Your task to perform on an android device: turn on translation in the chrome app Image 0: 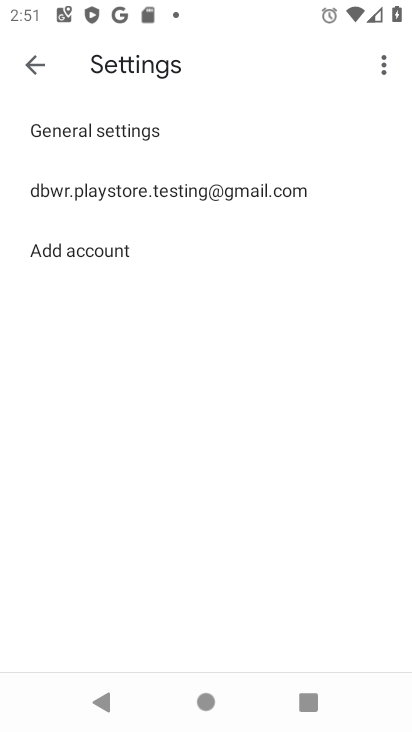
Step 0: press home button
Your task to perform on an android device: turn on translation in the chrome app Image 1: 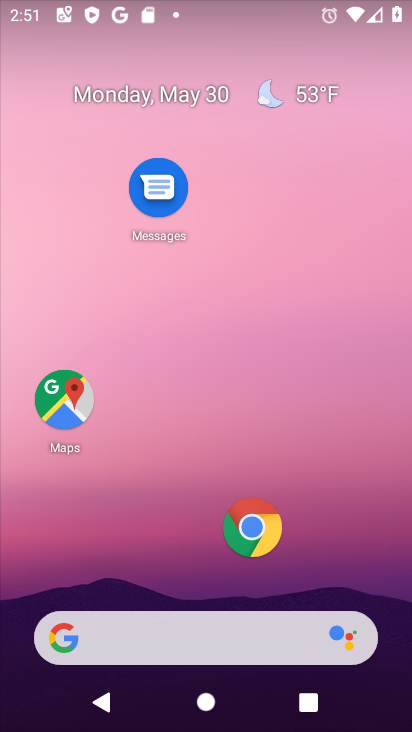
Step 1: drag from (152, 550) to (325, 63)
Your task to perform on an android device: turn on translation in the chrome app Image 2: 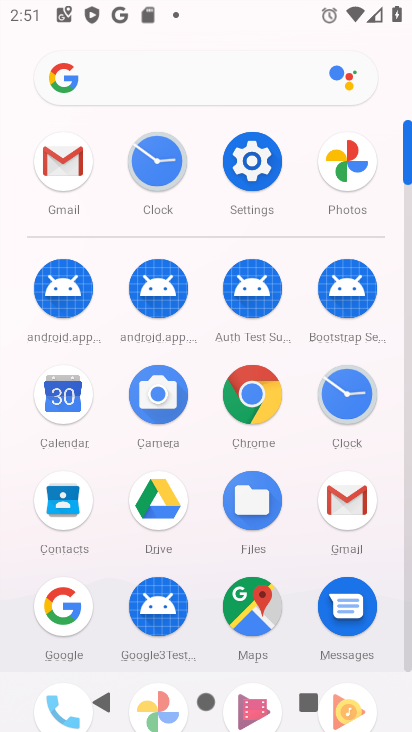
Step 2: click (235, 410)
Your task to perform on an android device: turn on translation in the chrome app Image 3: 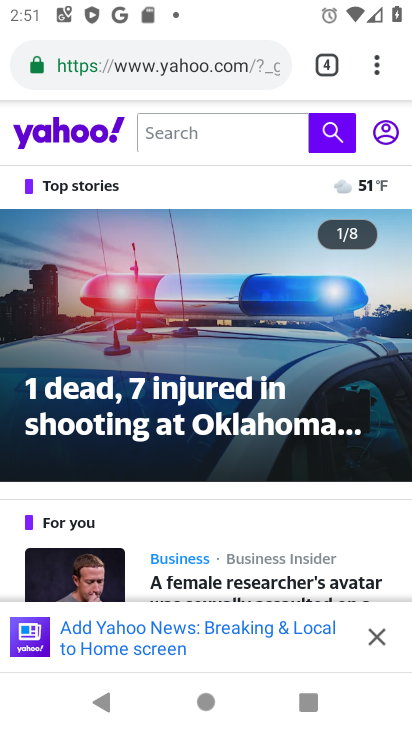
Step 3: click (376, 77)
Your task to perform on an android device: turn on translation in the chrome app Image 4: 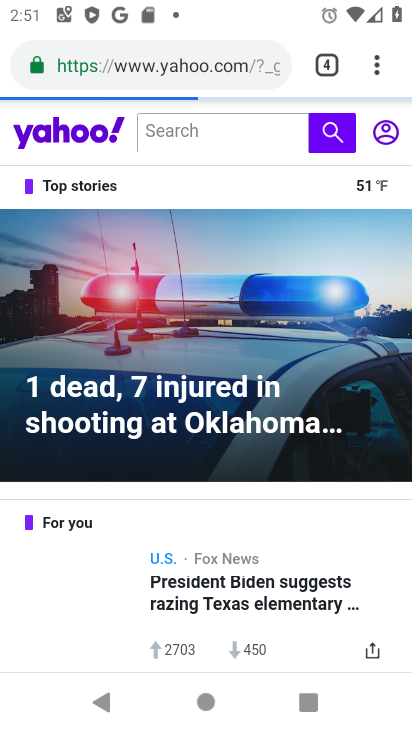
Step 4: click (371, 69)
Your task to perform on an android device: turn on translation in the chrome app Image 5: 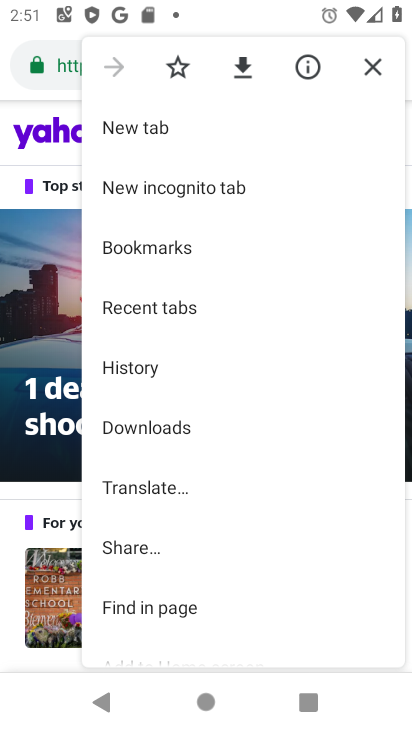
Step 5: drag from (219, 574) to (266, 241)
Your task to perform on an android device: turn on translation in the chrome app Image 6: 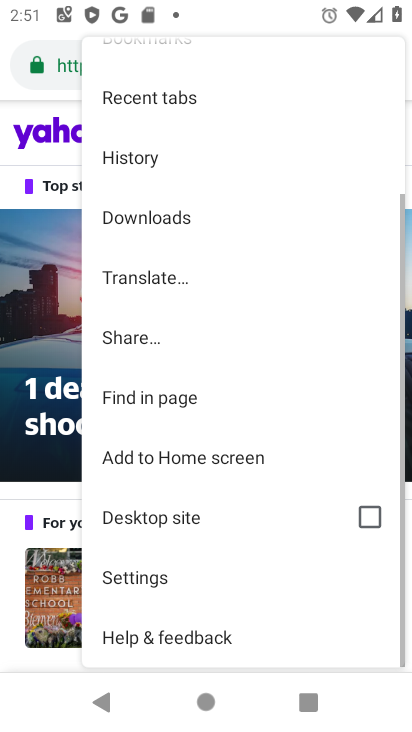
Step 6: click (182, 581)
Your task to perform on an android device: turn on translation in the chrome app Image 7: 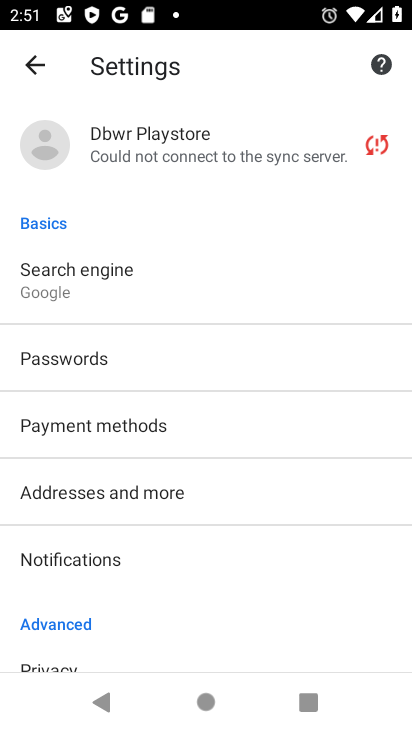
Step 7: drag from (177, 553) to (251, 171)
Your task to perform on an android device: turn on translation in the chrome app Image 8: 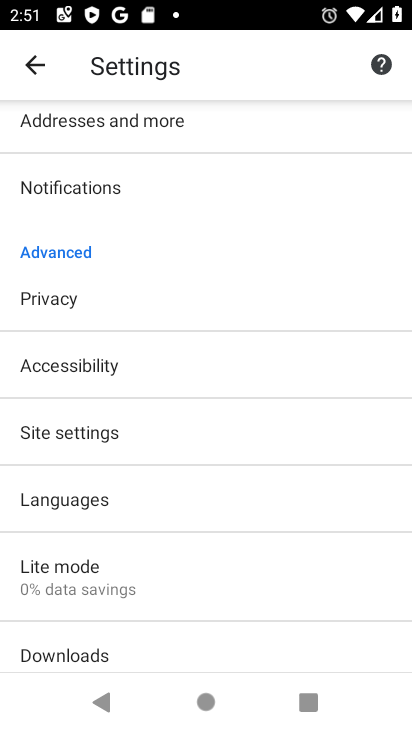
Step 8: drag from (139, 568) to (205, 287)
Your task to perform on an android device: turn on translation in the chrome app Image 9: 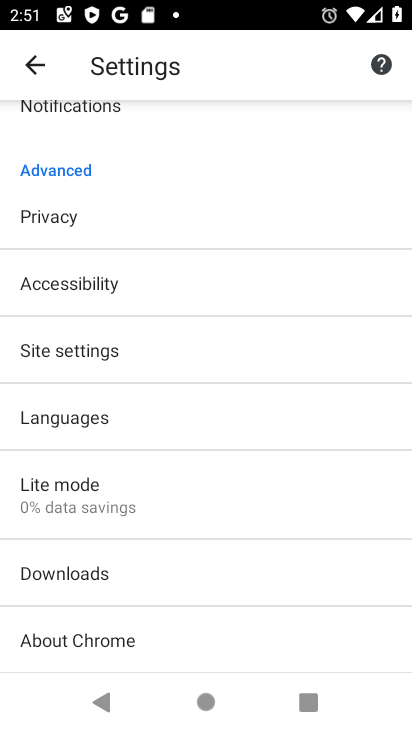
Step 9: click (113, 422)
Your task to perform on an android device: turn on translation in the chrome app Image 10: 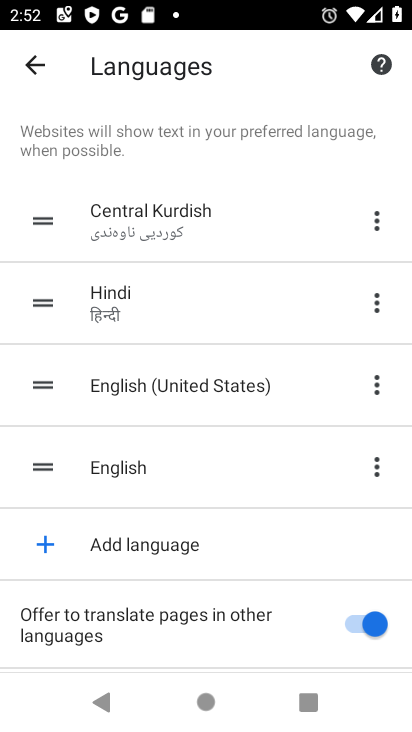
Step 10: task complete